Your task to perform on an android device: make emails show in primary in the gmail app Image 0: 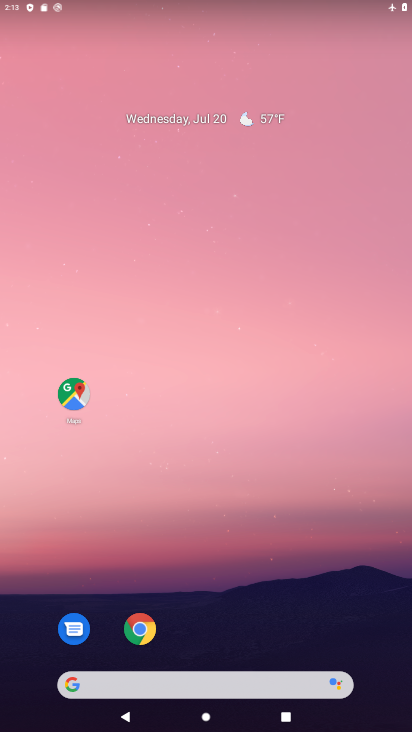
Step 0: drag from (203, 409) to (240, 74)
Your task to perform on an android device: make emails show in primary in the gmail app Image 1: 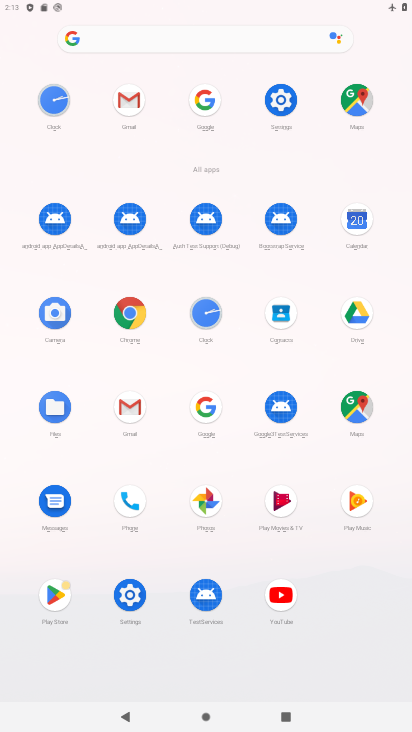
Step 1: click (131, 104)
Your task to perform on an android device: make emails show in primary in the gmail app Image 2: 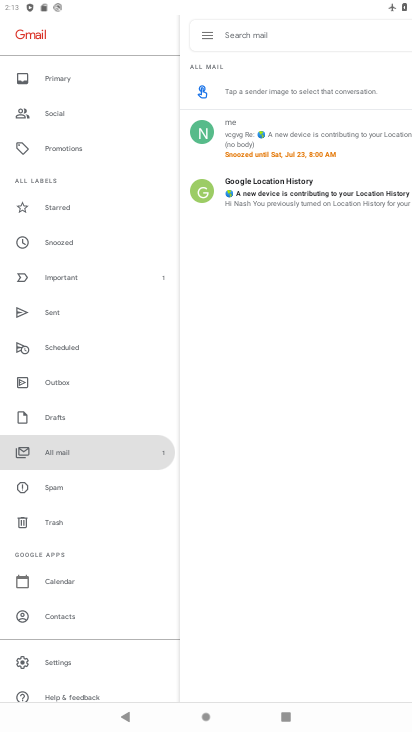
Step 2: click (83, 657)
Your task to perform on an android device: make emails show in primary in the gmail app Image 3: 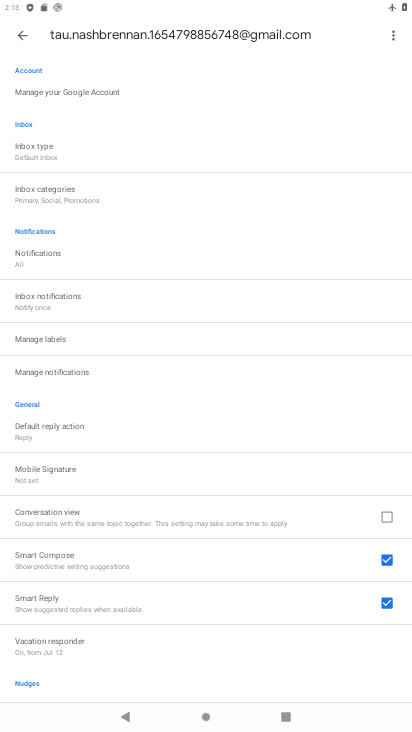
Step 3: click (28, 145)
Your task to perform on an android device: make emails show in primary in the gmail app Image 4: 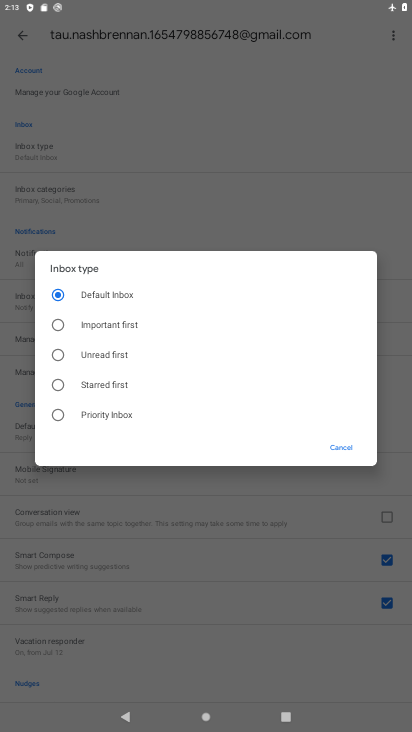
Step 4: task complete